Your task to perform on an android device: Open Chrome and go to the settings page Image 0: 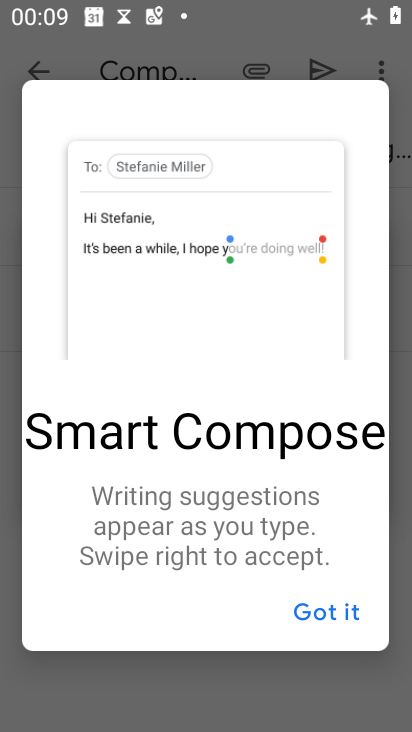
Step 0: press home button
Your task to perform on an android device: Open Chrome and go to the settings page Image 1: 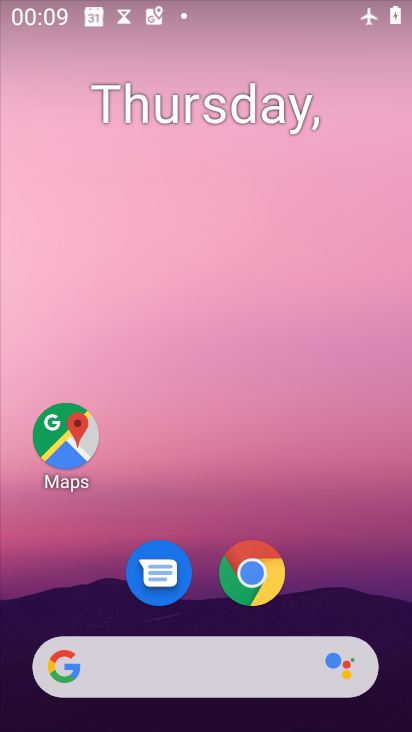
Step 1: click (257, 562)
Your task to perform on an android device: Open Chrome and go to the settings page Image 2: 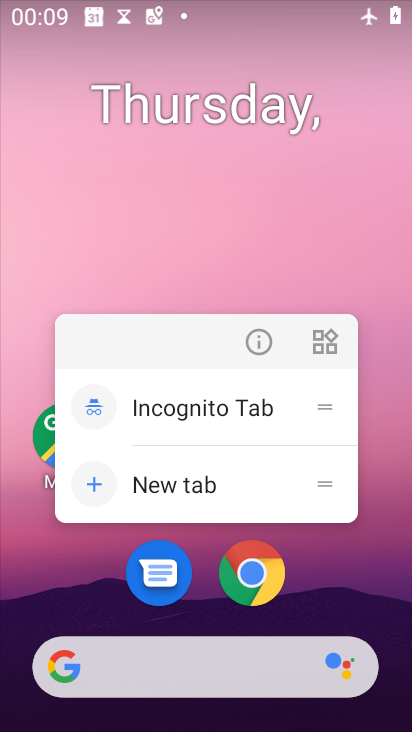
Step 2: click (264, 574)
Your task to perform on an android device: Open Chrome and go to the settings page Image 3: 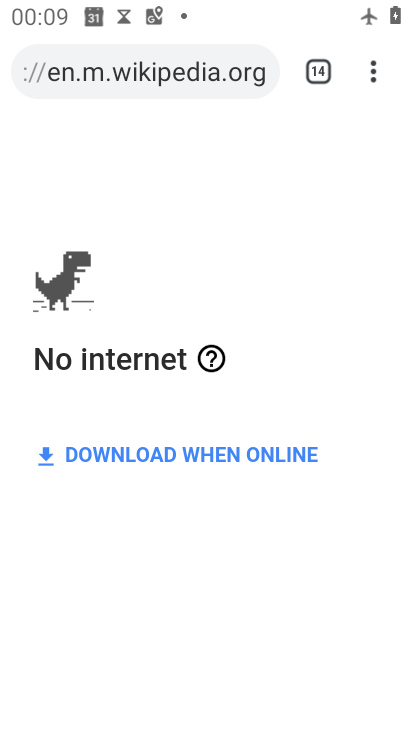
Step 3: click (370, 66)
Your task to perform on an android device: Open Chrome and go to the settings page Image 4: 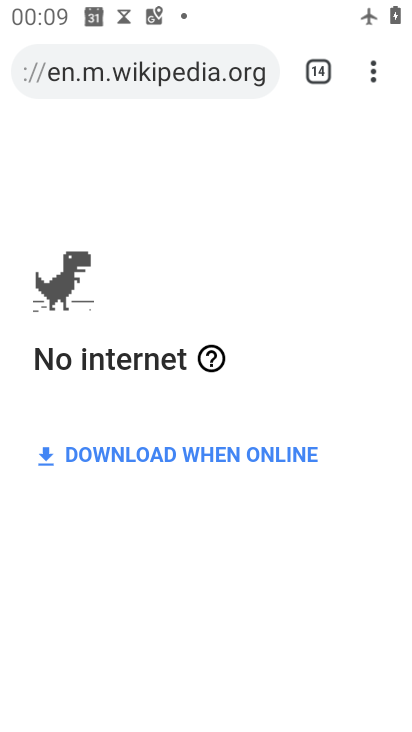
Step 4: click (357, 61)
Your task to perform on an android device: Open Chrome and go to the settings page Image 5: 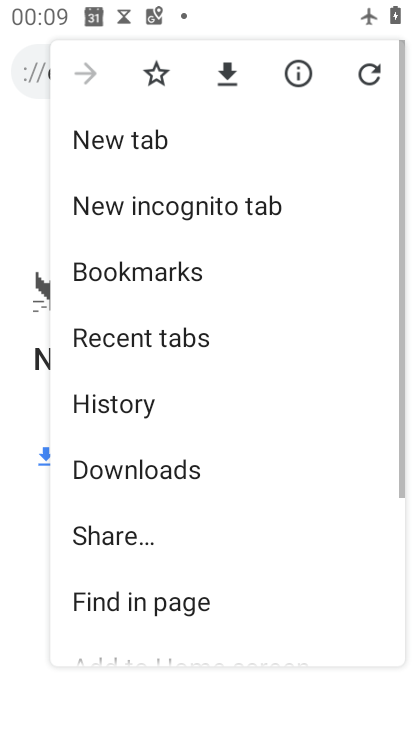
Step 5: drag from (178, 562) to (250, 250)
Your task to perform on an android device: Open Chrome and go to the settings page Image 6: 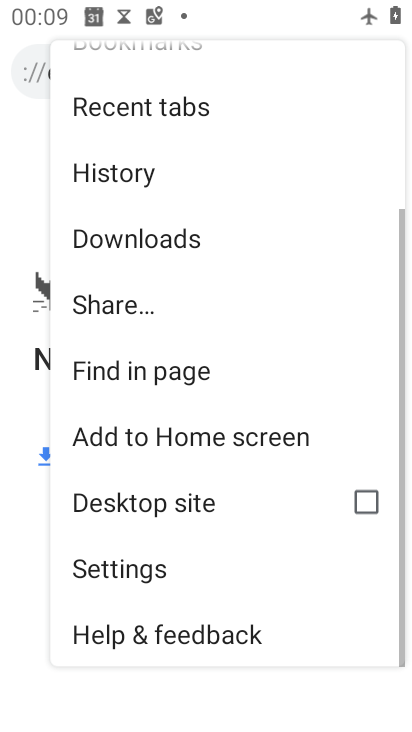
Step 6: click (148, 578)
Your task to perform on an android device: Open Chrome and go to the settings page Image 7: 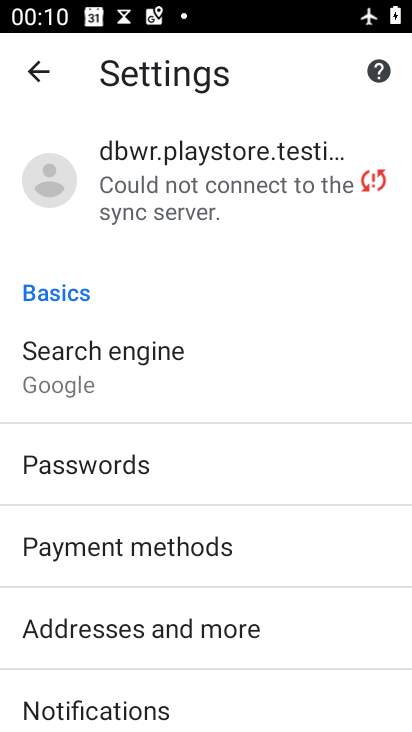
Step 7: task complete